Your task to perform on an android device: check out phone information Image 0: 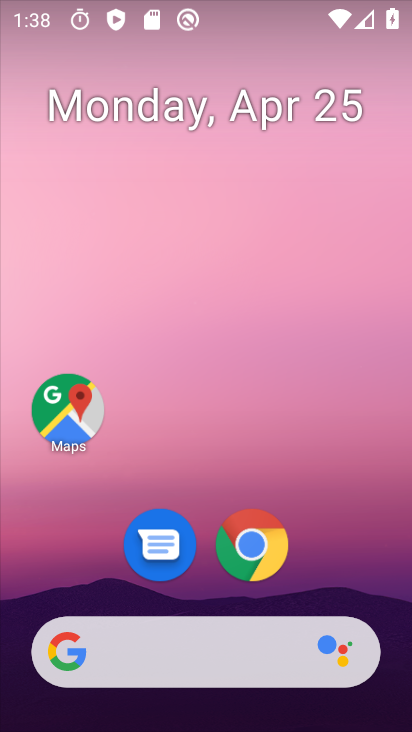
Step 0: drag from (325, 555) to (314, 72)
Your task to perform on an android device: check out phone information Image 1: 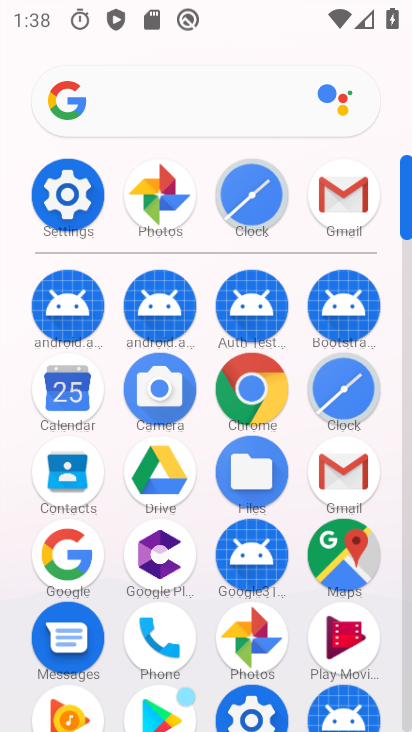
Step 1: click (71, 202)
Your task to perform on an android device: check out phone information Image 2: 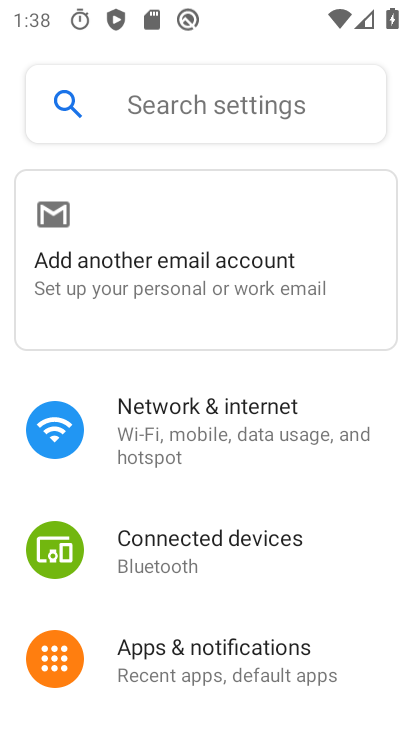
Step 2: drag from (278, 556) to (278, 185)
Your task to perform on an android device: check out phone information Image 3: 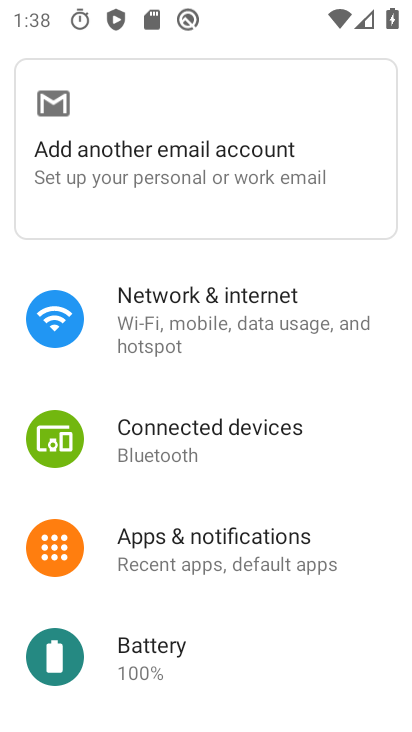
Step 3: drag from (285, 579) to (286, 144)
Your task to perform on an android device: check out phone information Image 4: 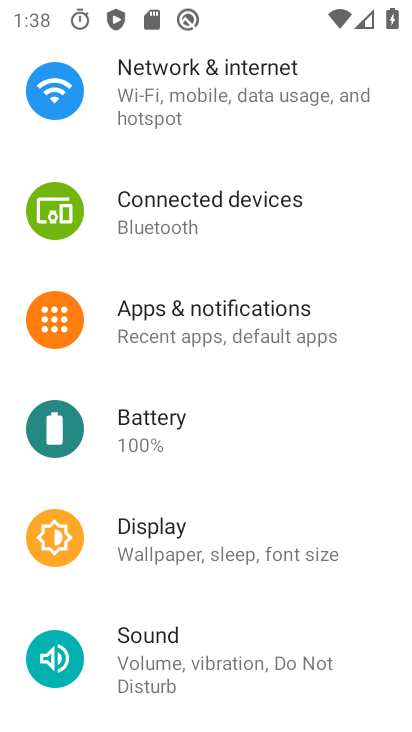
Step 4: drag from (309, 557) to (323, 221)
Your task to perform on an android device: check out phone information Image 5: 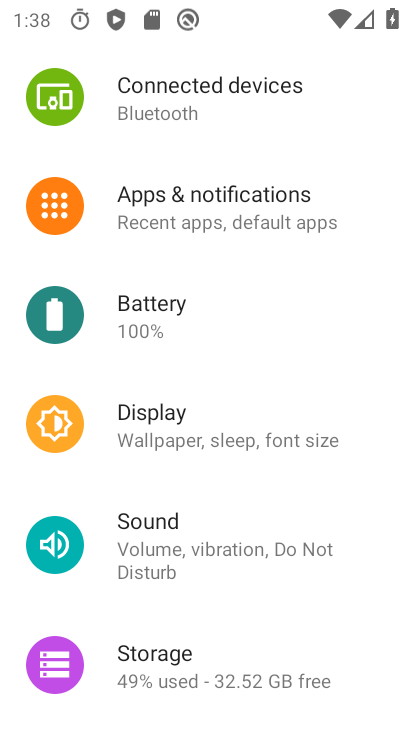
Step 5: drag from (267, 670) to (273, 161)
Your task to perform on an android device: check out phone information Image 6: 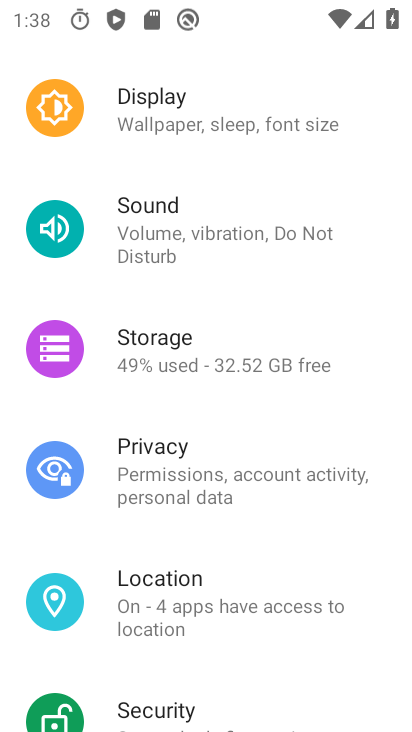
Step 6: drag from (297, 607) to (281, 161)
Your task to perform on an android device: check out phone information Image 7: 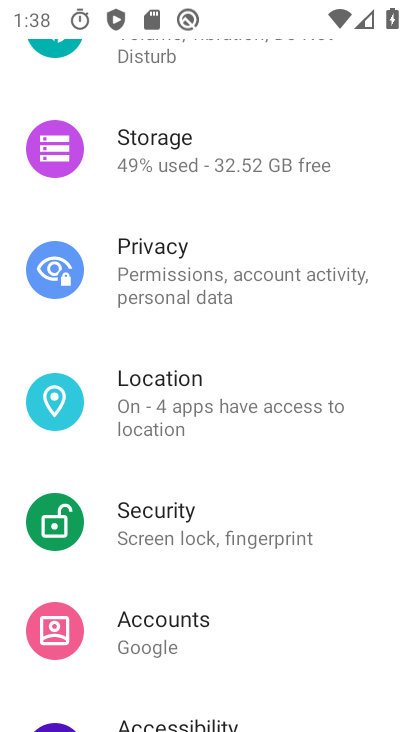
Step 7: drag from (275, 669) to (284, 170)
Your task to perform on an android device: check out phone information Image 8: 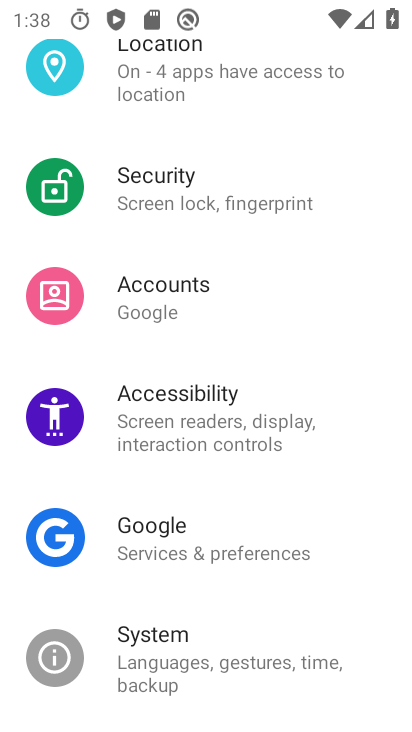
Step 8: drag from (264, 561) to (256, 220)
Your task to perform on an android device: check out phone information Image 9: 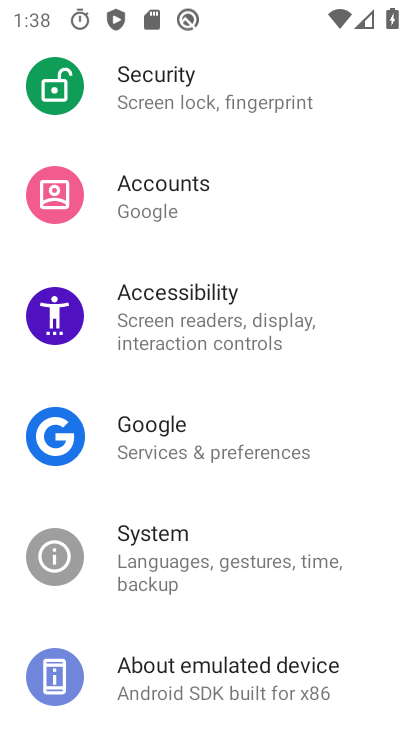
Step 9: click (232, 671)
Your task to perform on an android device: check out phone information Image 10: 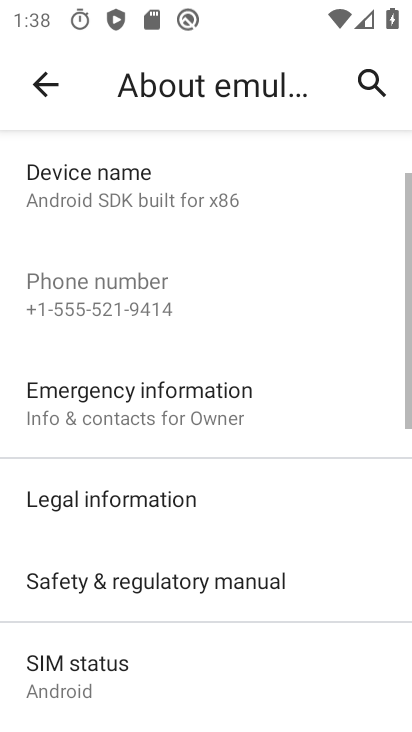
Step 10: drag from (256, 533) to (252, 191)
Your task to perform on an android device: check out phone information Image 11: 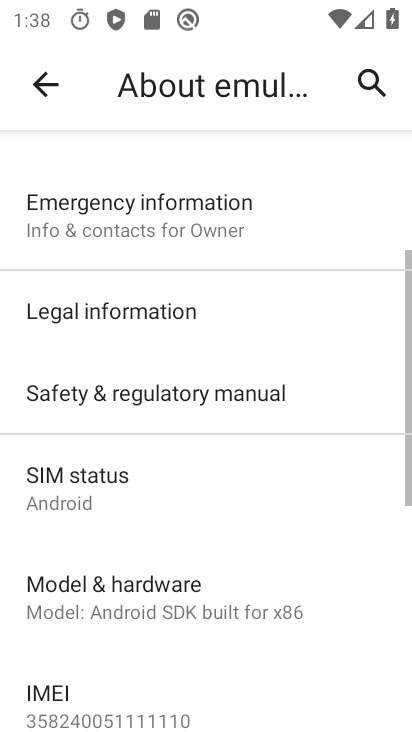
Step 11: click (220, 597)
Your task to perform on an android device: check out phone information Image 12: 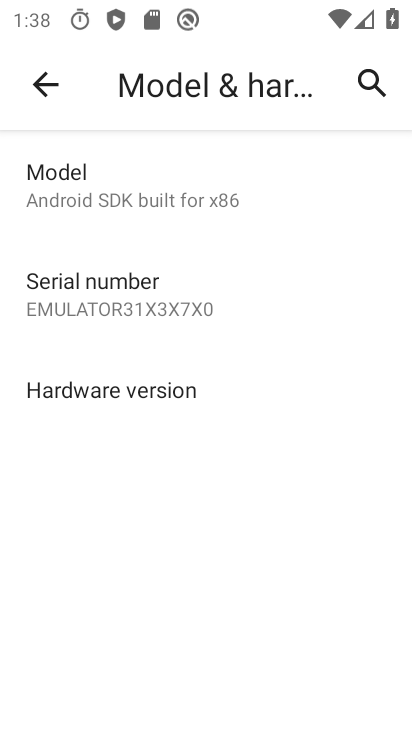
Step 12: task complete